Your task to perform on an android device: turn off improve location accuracy Image 0: 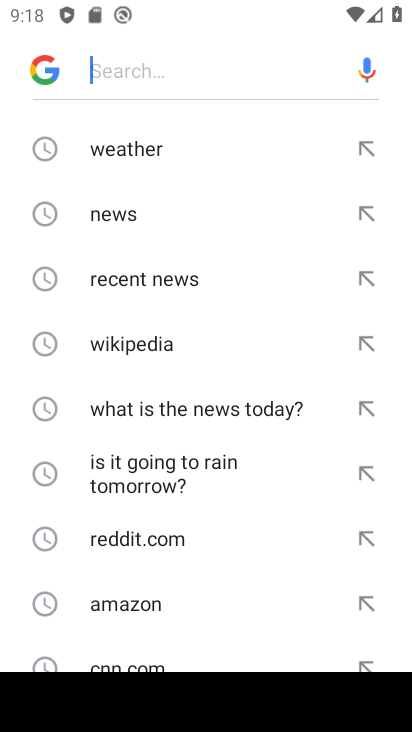
Step 0: press home button
Your task to perform on an android device: turn off improve location accuracy Image 1: 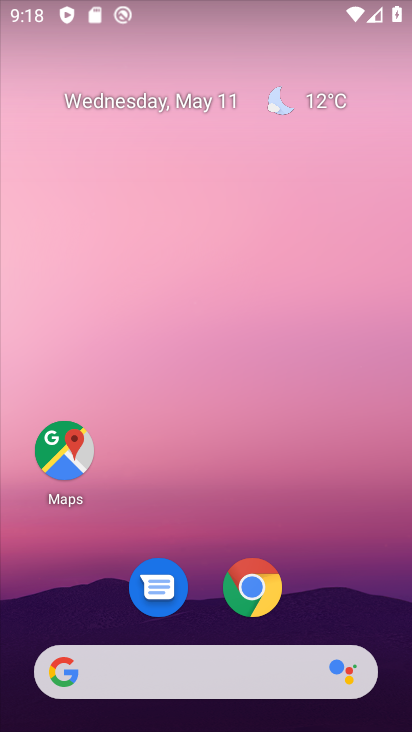
Step 1: drag from (345, 608) to (268, 6)
Your task to perform on an android device: turn off improve location accuracy Image 2: 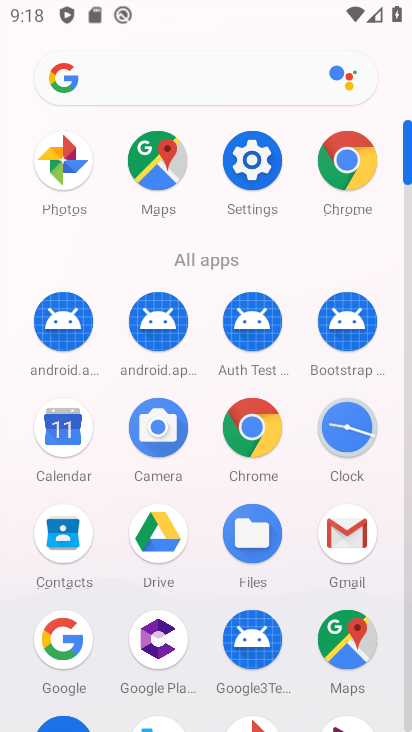
Step 2: click (247, 160)
Your task to perform on an android device: turn off improve location accuracy Image 3: 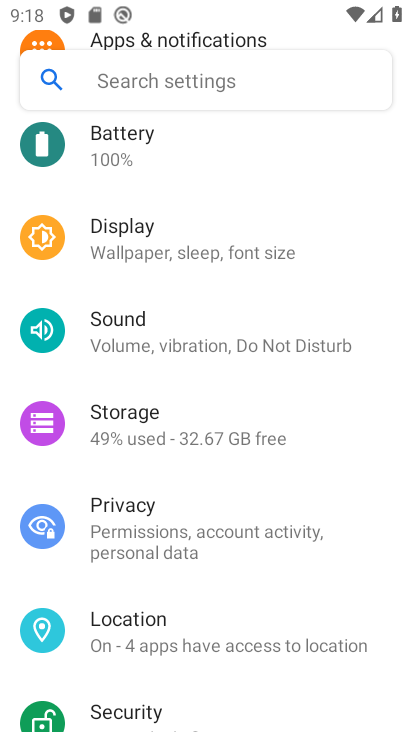
Step 3: click (142, 644)
Your task to perform on an android device: turn off improve location accuracy Image 4: 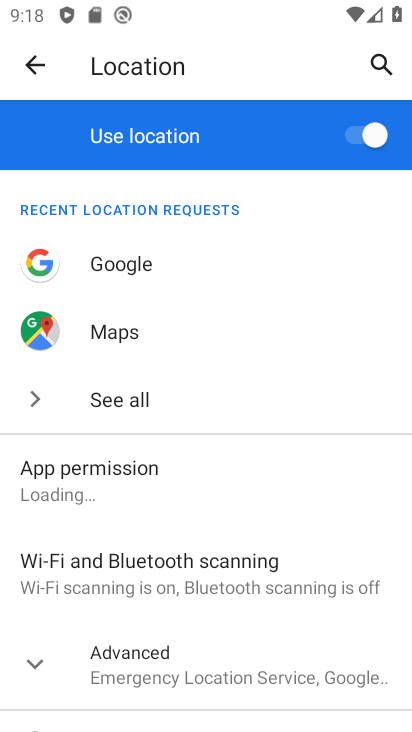
Step 4: drag from (214, 276) to (216, 173)
Your task to perform on an android device: turn off improve location accuracy Image 5: 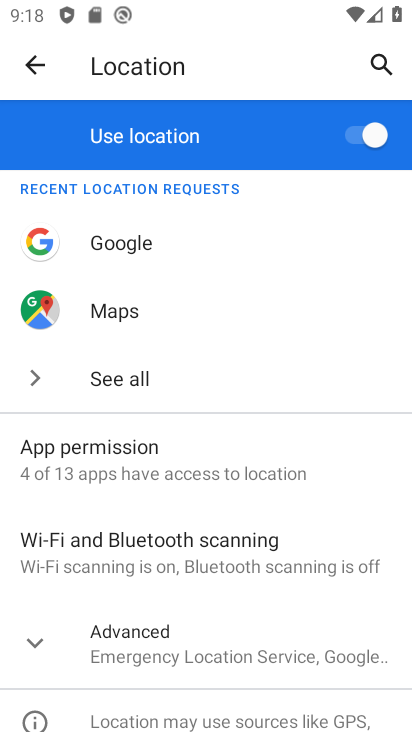
Step 5: click (36, 643)
Your task to perform on an android device: turn off improve location accuracy Image 6: 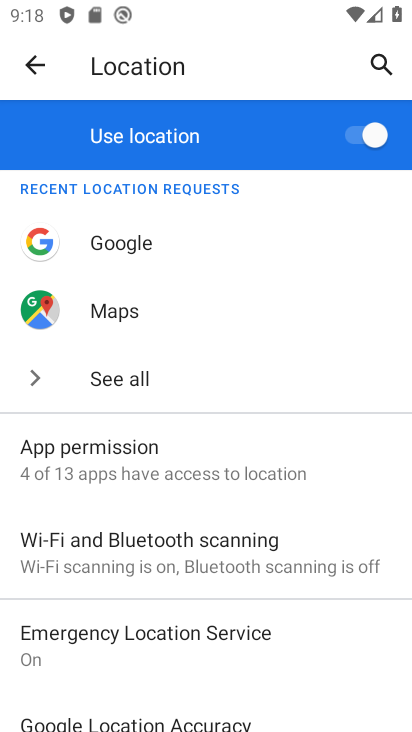
Step 6: drag from (329, 630) to (323, 303)
Your task to perform on an android device: turn off improve location accuracy Image 7: 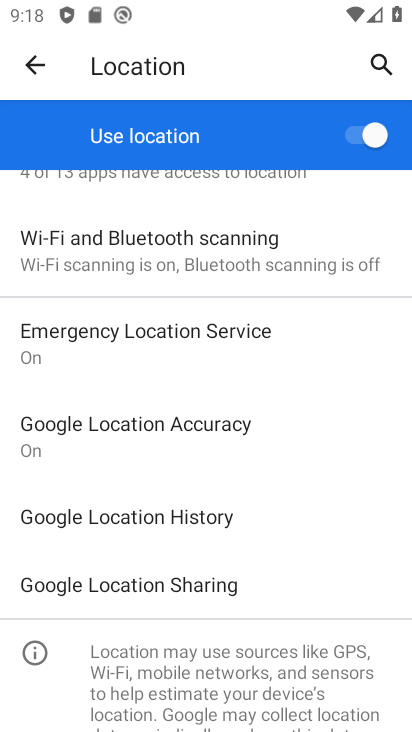
Step 7: click (130, 432)
Your task to perform on an android device: turn off improve location accuracy Image 8: 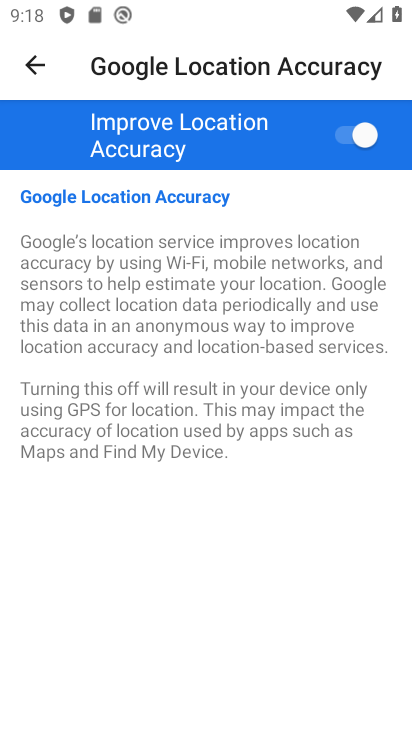
Step 8: click (359, 132)
Your task to perform on an android device: turn off improve location accuracy Image 9: 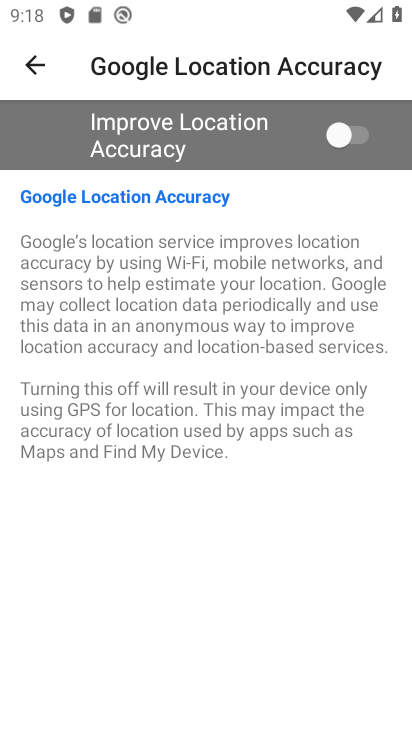
Step 9: task complete